Your task to perform on an android device: Go to notification settings Image 0: 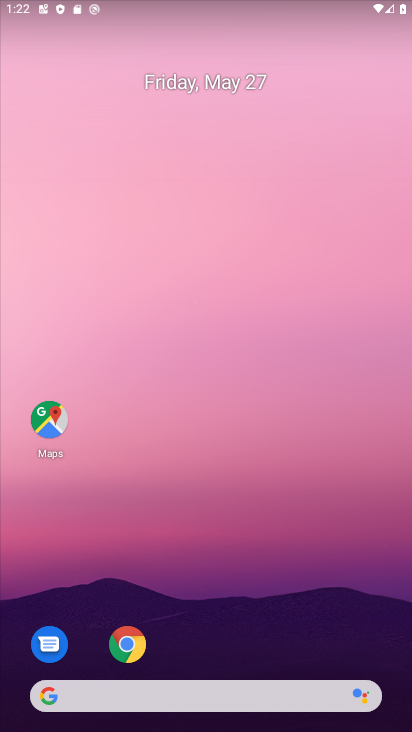
Step 0: drag from (297, 591) to (183, 9)
Your task to perform on an android device: Go to notification settings Image 1: 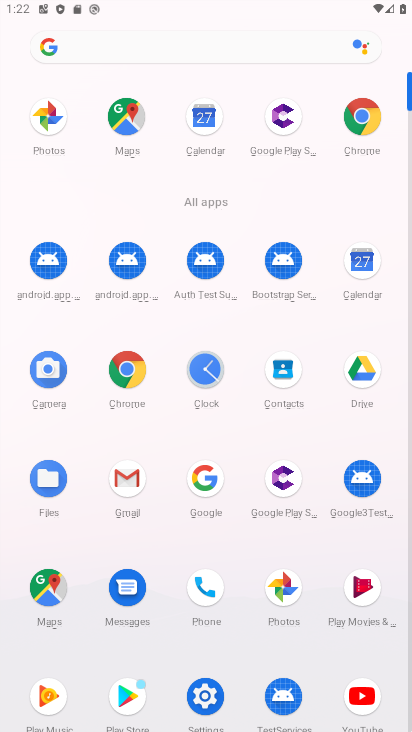
Step 1: drag from (4, 586) to (28, 211)
Your task to perform on an android device: Go to notification settings Image 2: 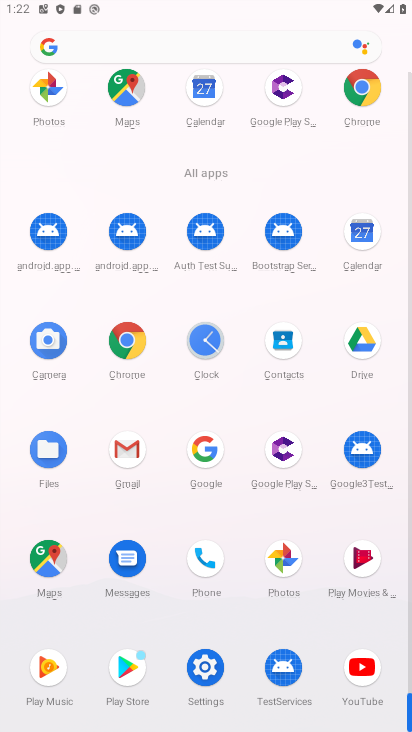
Step 2: click (200, 665)
Your task to perform on an android device: Go to notification settings Image 3: 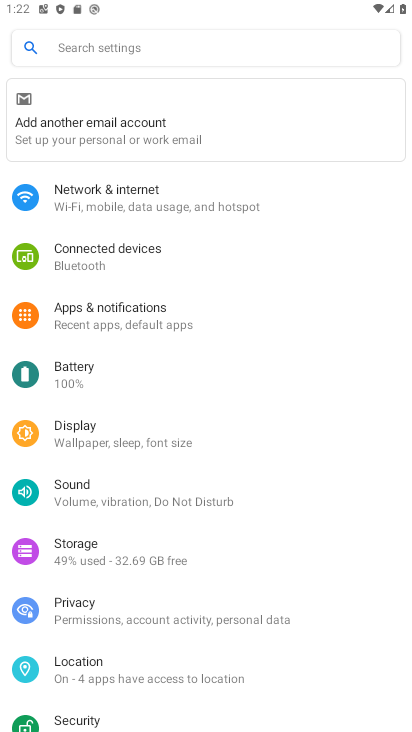
Step 3: click (146, 315)
Your task to perform on an android device: Go to notification settings Image 4: 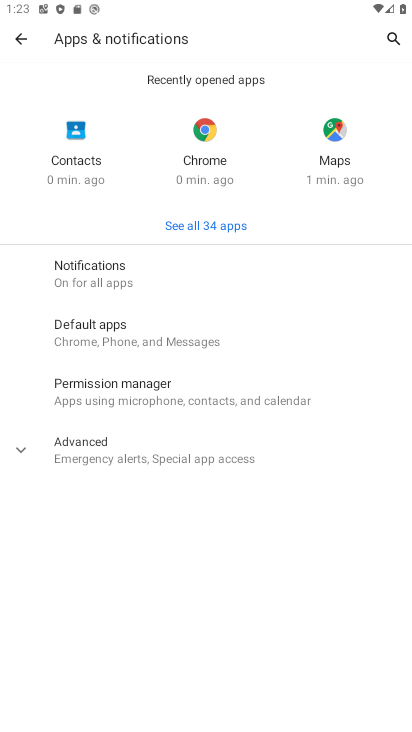
Step 4: click (22, 450)
Your task to perform on an android device: Go to notification settings Image 5: 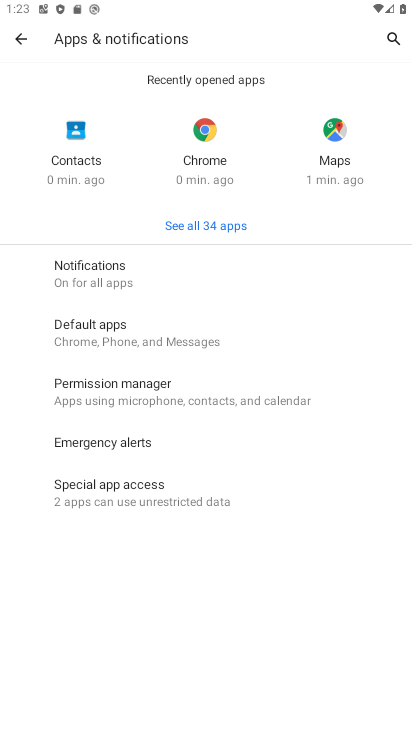
Step 5: click (141, 270)
Your task to perform on an android device: Go to notification settings Image 6: 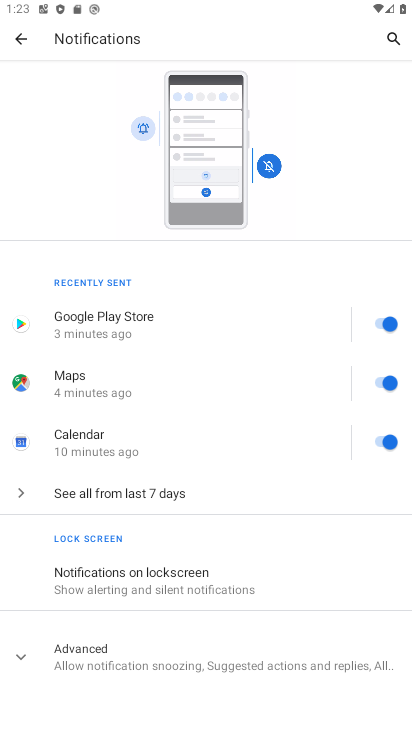
Step 6: drag from (238, 633) to (272, 217)
Your task to perform on an android device: Go to notification settings Image 7: 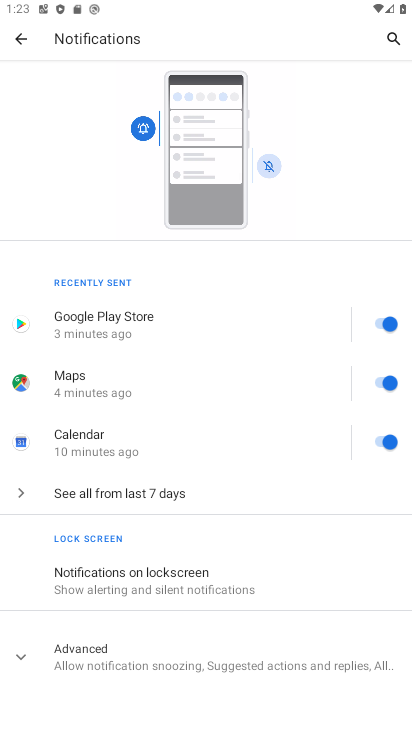
Step 7: click (40, 663)
Your task to perform on an android device: Go to notification settings Image 8: 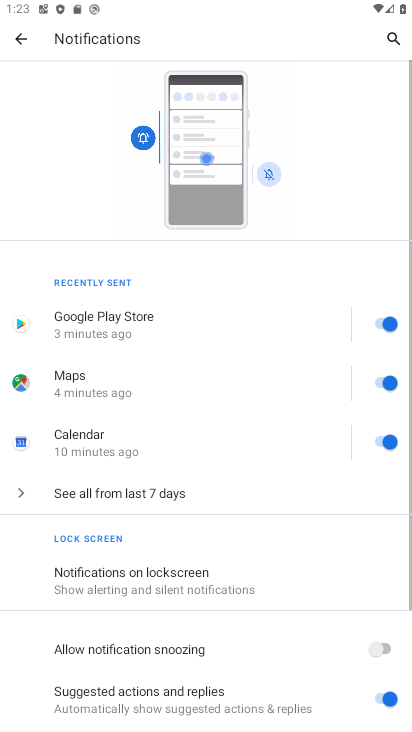
Step 8: task complete